Your task to perform on an android device: turn pop-ups on in chrome Image 0: 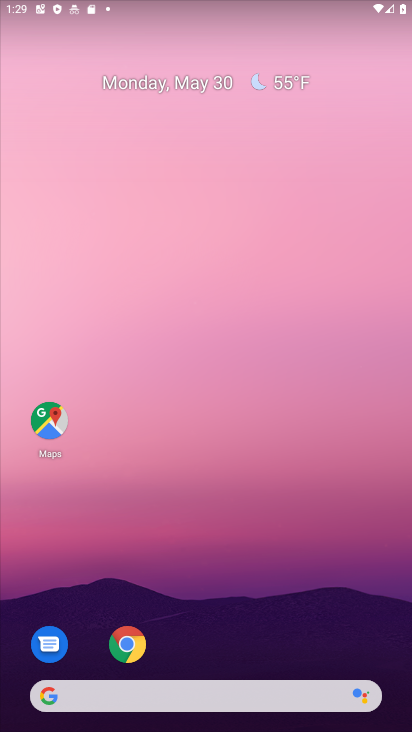
Step 0: click (138, 641)
Your task to perform on an android device: turn pop-ups on in chrome Image 1: 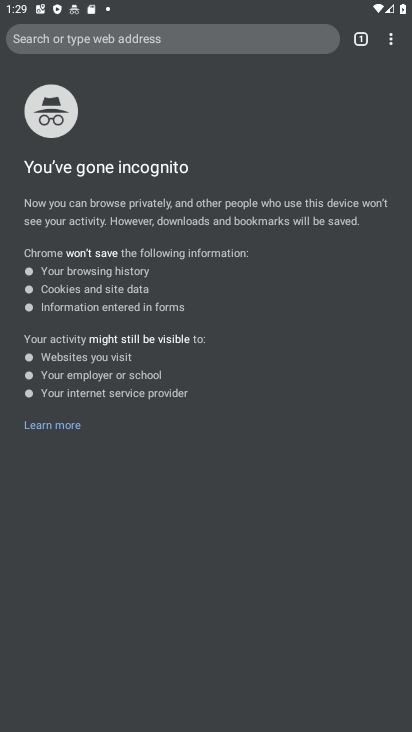
Step 1: click (391, 26)
Your task to perform on an android device: turn pop-ups on in chrome Image 2: 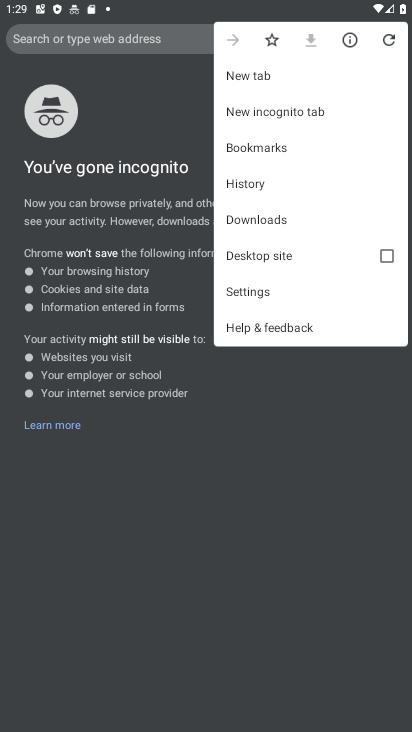
Step 2: click (280, 282)
Your task to perform on an android device: turn pop-ups on in chrome Image 3: 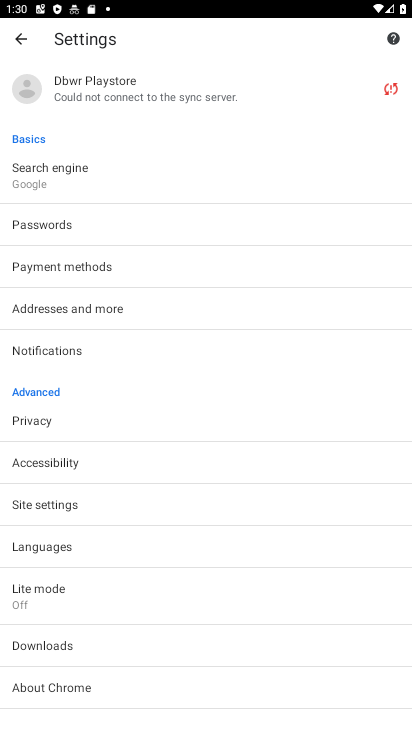
Step 3: click (140, 506)
Your task to perform on an android device: turn pop-ups on in chrome Image 4: 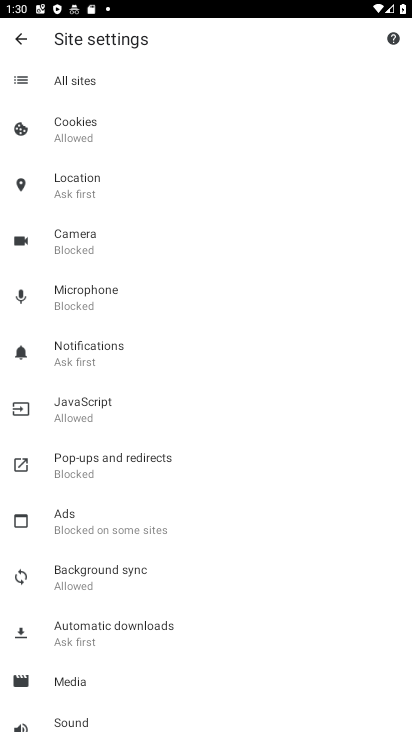
Step 4: task complete